Your task to perform on an android device: find which apps use the phone's location Image 0: 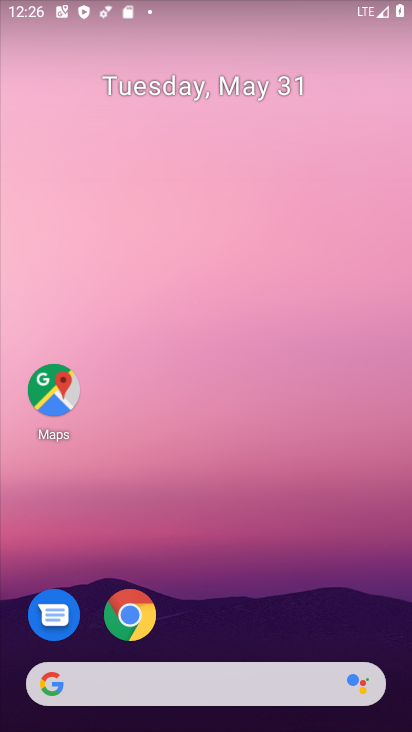
Step 0: drag from (259, 576) to (274, 460)
Your task to perform on an android device: find which apps use the phone's location Image 1: 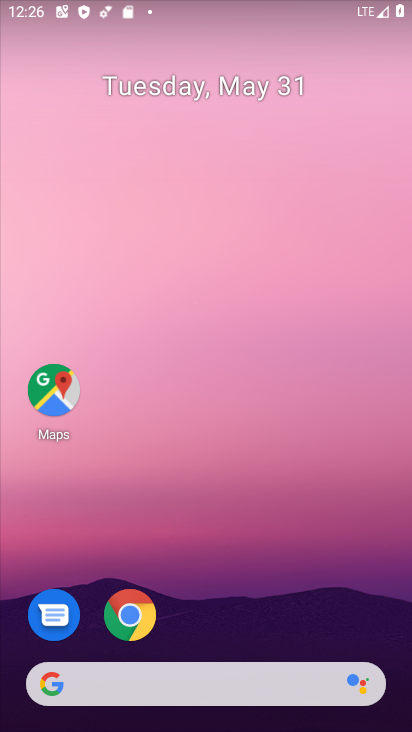
Step 1: drag from (181, 629) to (294, 16)
Your task to perform on an android device: find which apps use the phone's location Image 2: 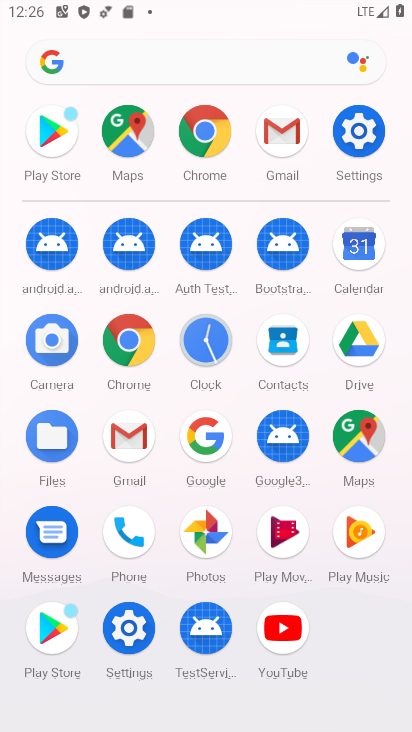
Step 2: click (124, 634)
Your task to perform on an android device: find which apps use the phone's location Image 3: 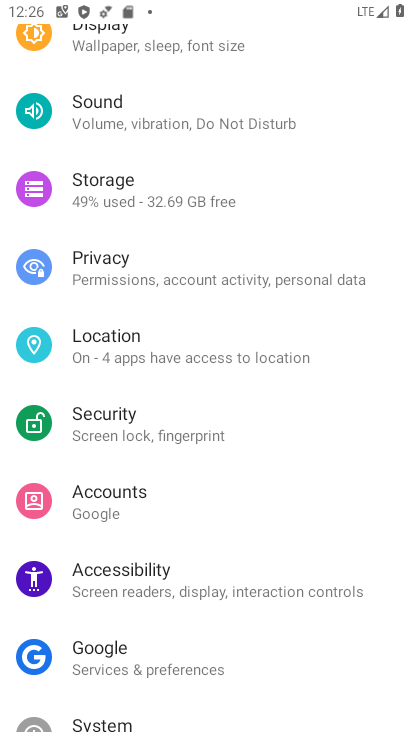
Step 3: click (130, 337)
Your task to perform on an android device: find which apps use the phone's location Image 4: 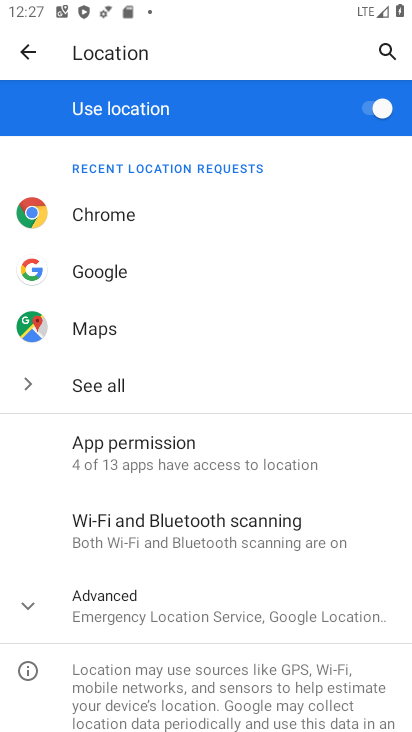
Step 4: click (162, 445)
Your task to perform on an android device: find which apps use the phone's location Image 5: 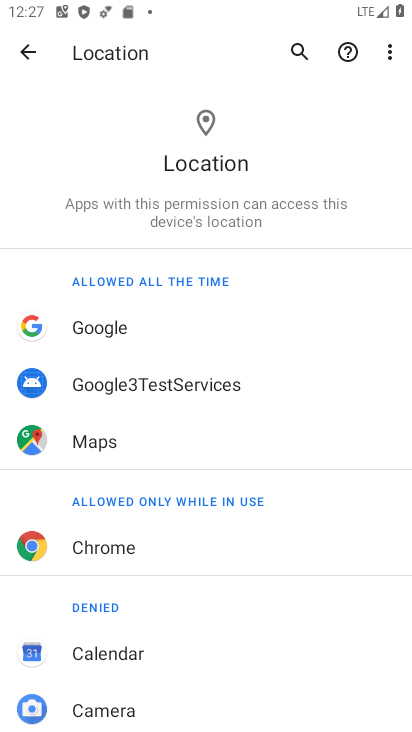
Step 5: task complete